Your task to perform on an android device: change the clock display to digital Image 0: 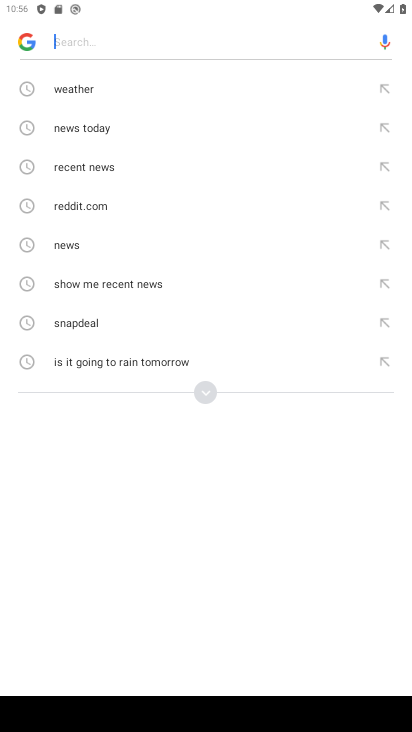
Step 0: press home button
Your task to perform on an android device: change the clock display to digital Image 1: 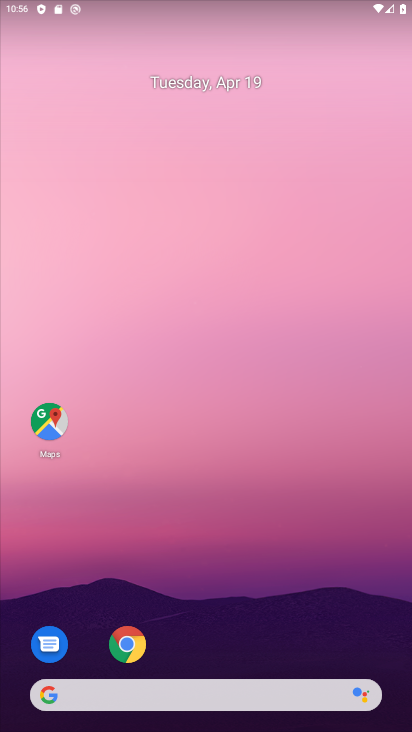
Step 1: drag from (230, 606) to (302, 99)
Your task to perform on an android device: change the clock display to digital Image 2: 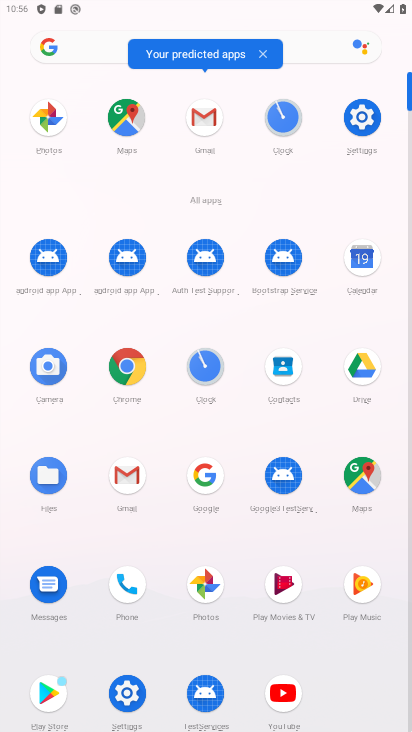
Step 2: click (285, 119)
Your task to perform on an android device: change the clock display to digital Image 3: 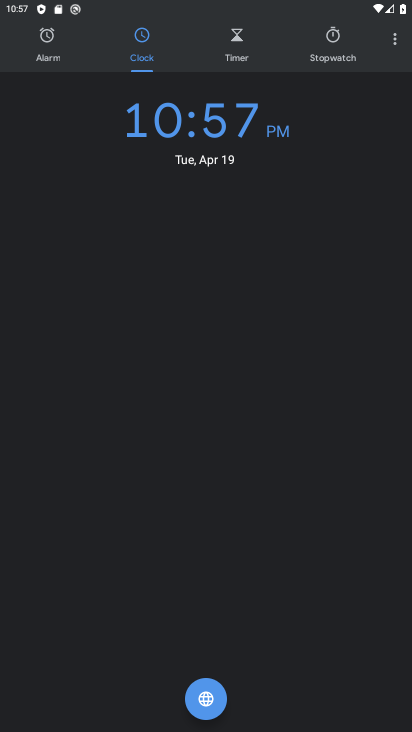
Step 3: click (395, 40)
Your task to perform on an android device: change the clock display to digital Image 4: 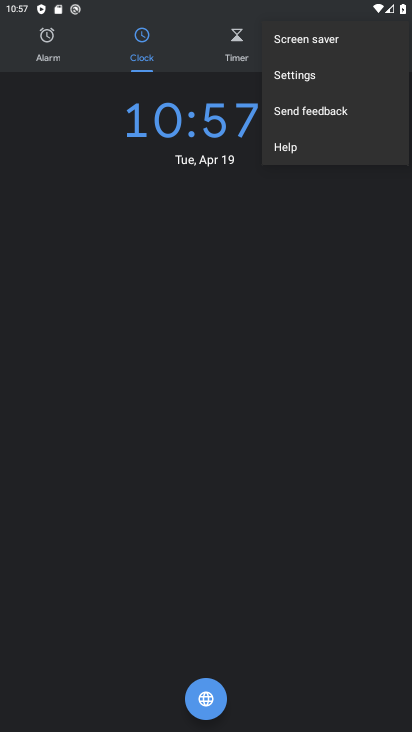
Step 4: click (313, 77)
Your task to perform on an android device: change the clock display to digital Image 5: 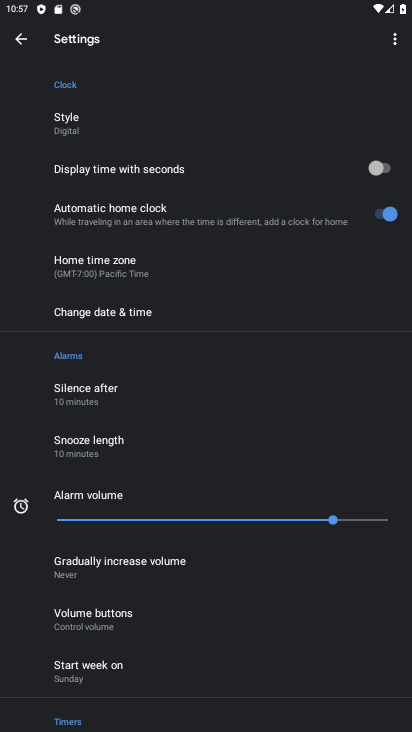
Step 5: click (94, 127)
Your task to perform on an android device: change the clock display to digital Image 6: 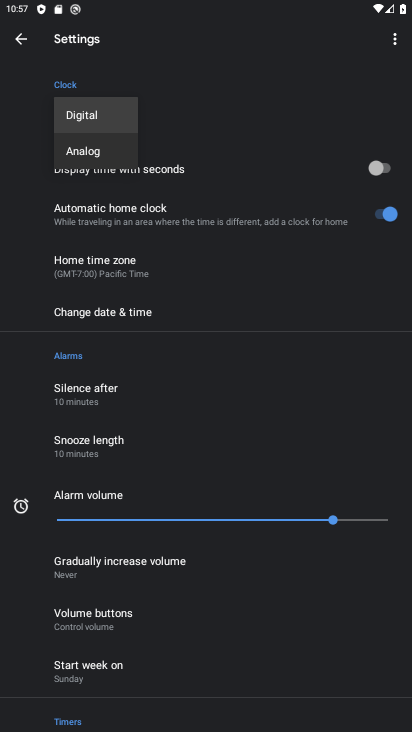
Step 6: click (94, 127)
Your task to perform on an android device: change the clock display to digital Image 7: 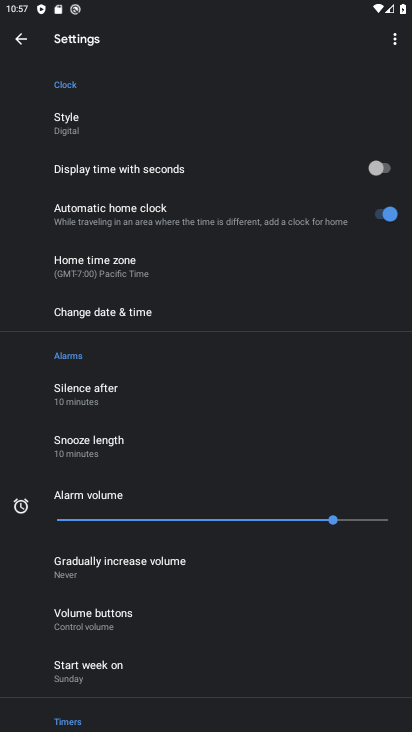
Step 7: task complete